Your task to perform on an android device: What's on my calendar today? Image 0: 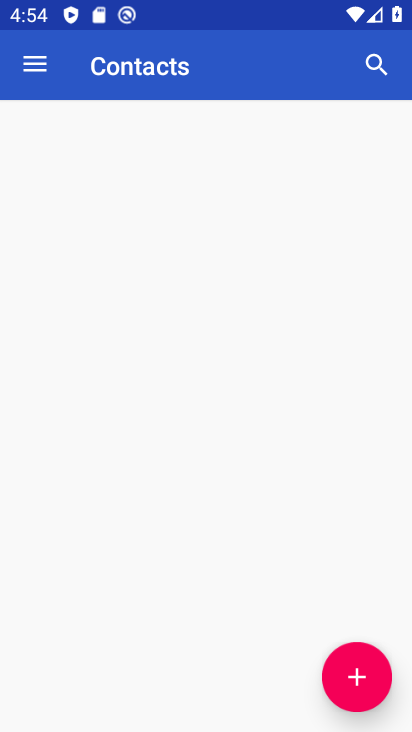
Step 0: press home button
Your task to perform on an android device: What's on my calendar today? Image 1: 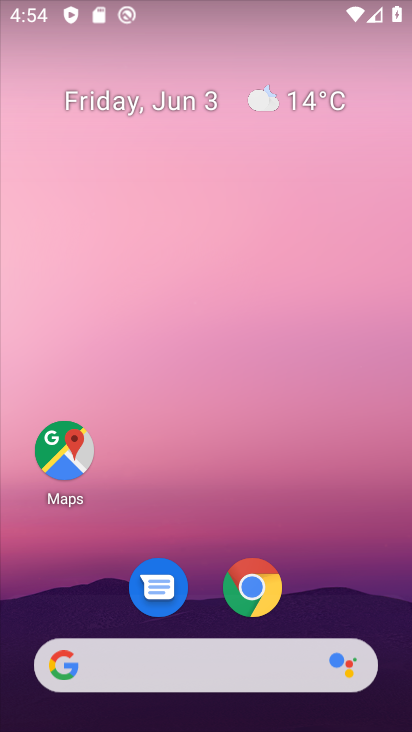
Step 1: click (154, 104)
Your task to perform on an android device: What's on my calendar today? Image 2: 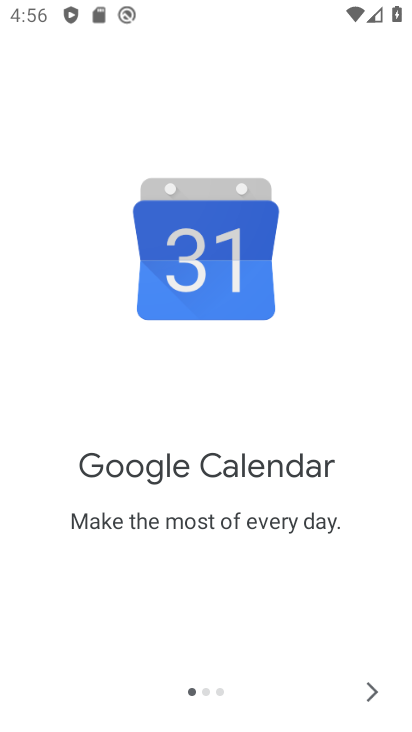
Step 2: click (363, 692)
Your task to perform on an android device: What's on my calendar today? Image 3: 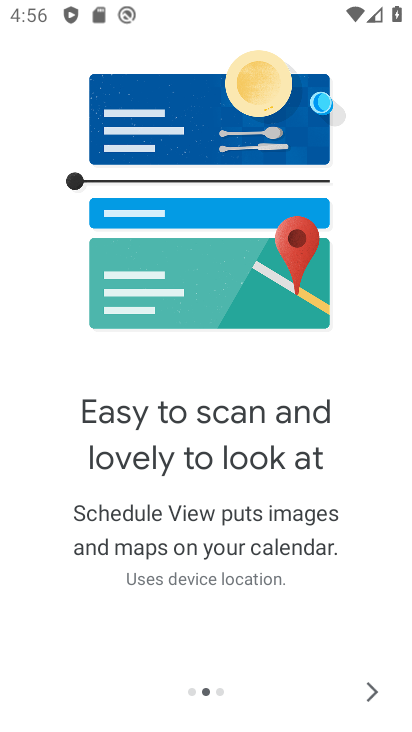
Step 3: click (363, 692)
Your task to perform on an android device: What's on my calendar today? Image 4: 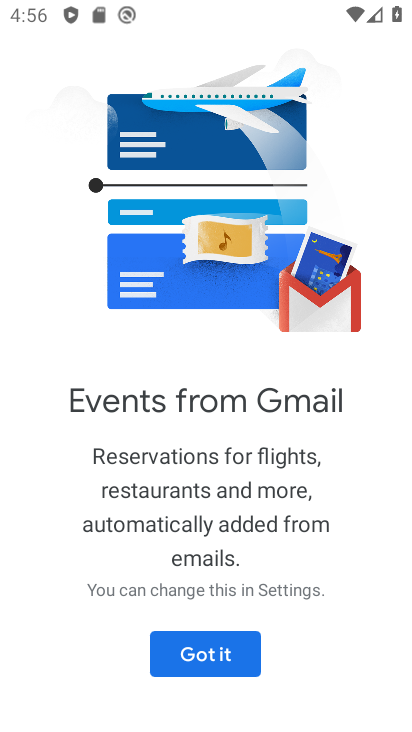
Step 4: click (218, 678)
Your task to perform on an android device: What's on my calendar today? Image 5: 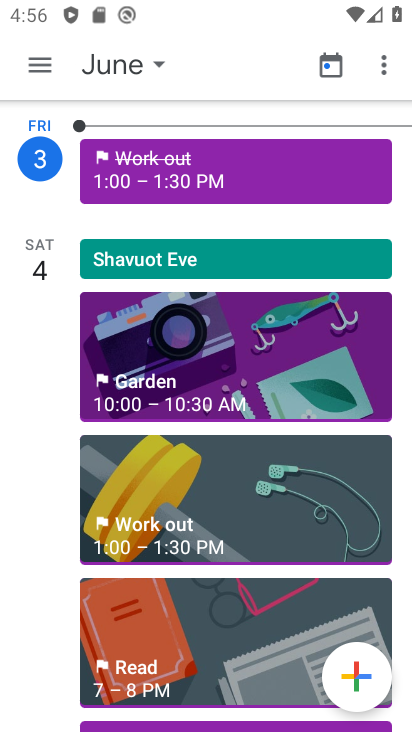
Step 5: task complete